Your task to perform on an android device: turn on airplane mode Image 0: 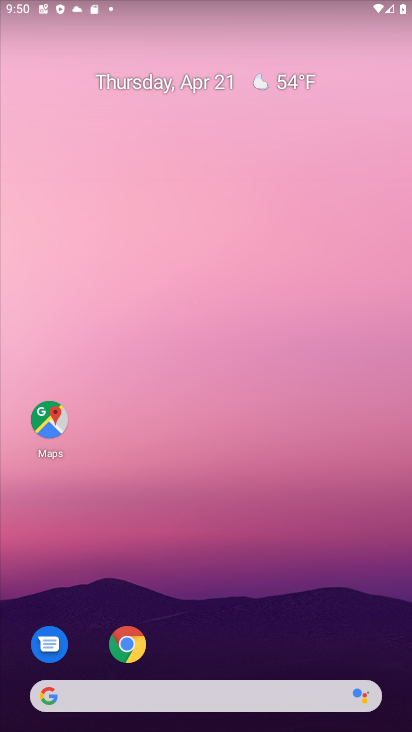
Step 0: drag from (183, 601) to (138, 126)
Your task to perform on an android device: turn on airplane mode Image 1: 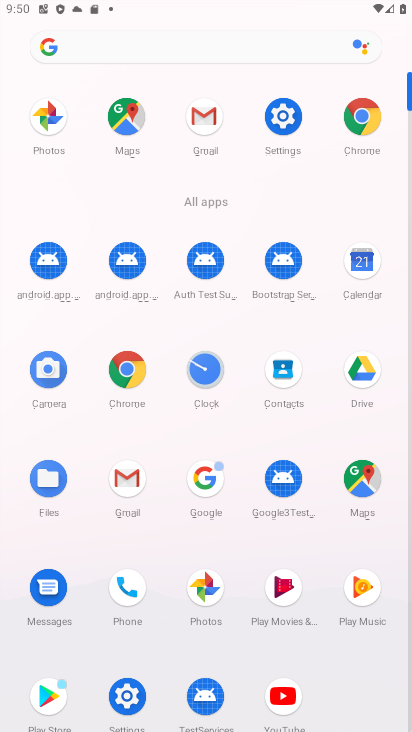
Step 1: click (287, 104)
Your task to perform on an android device: turn on airplane mode Image 2: 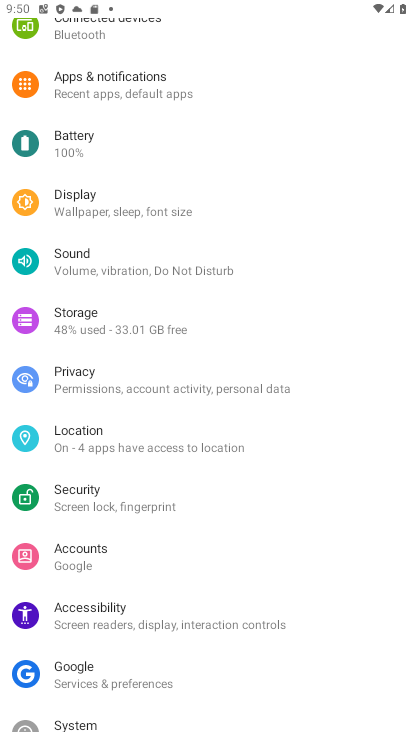
Step 2: drag from (130, 77) to (152, 373)
Your task to perform on an android device: turn on airplane mode Image 3: 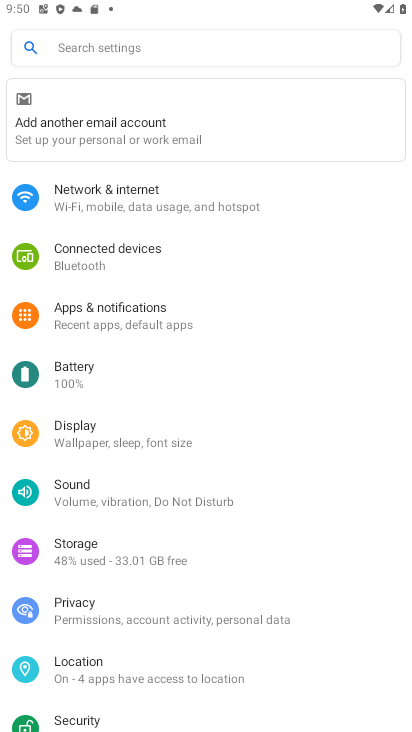
Step 3: click (114, 210)
Your task to perform on an android device: turn on airplane mode Image 4: 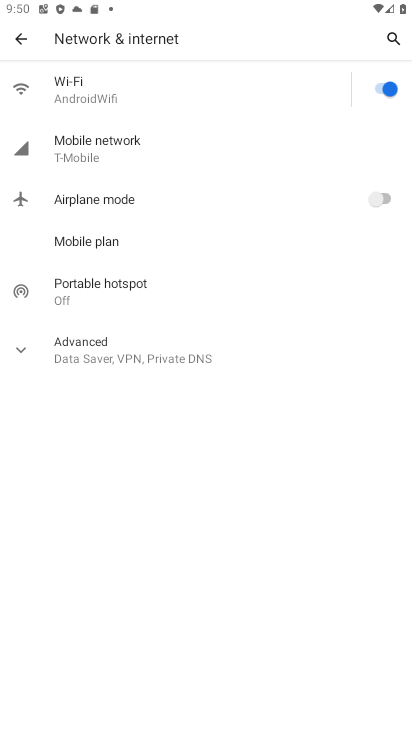
Step 4: click (384, 200)
Your task to perform on an android device: turn on airplane mode Image 5: 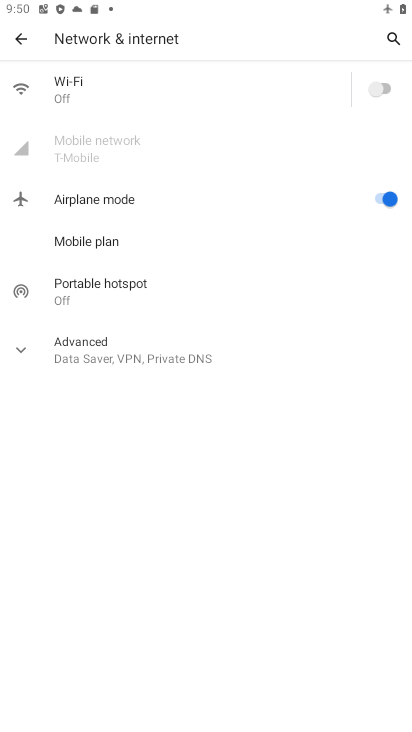
Step 5: task complete